Your task to perform on an android device: Open Chrome and go to settings Image 0: 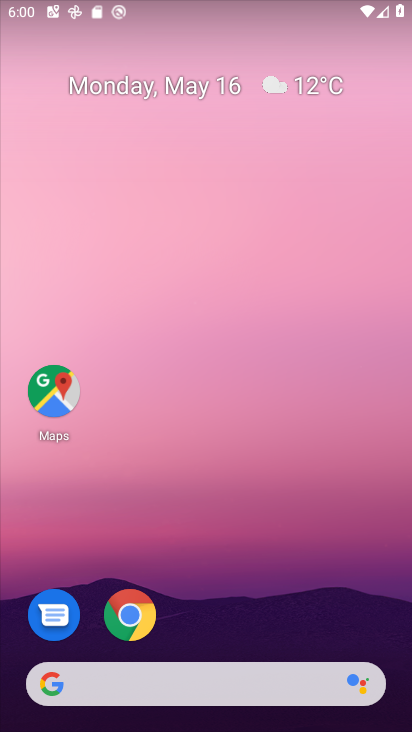
Step 0: click (139, 629)
Your task to perform on an android device: Open Chrome and go to settings Image 1: 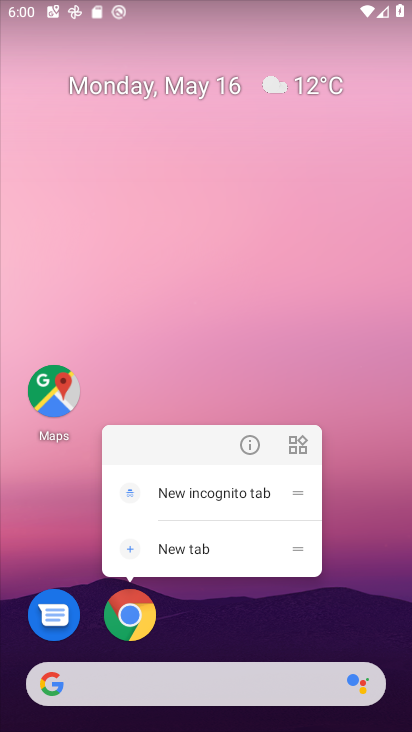
Step 1: click (128, 620)
Your task to perform on an android device: Open Chrome and go to settings Image 2: 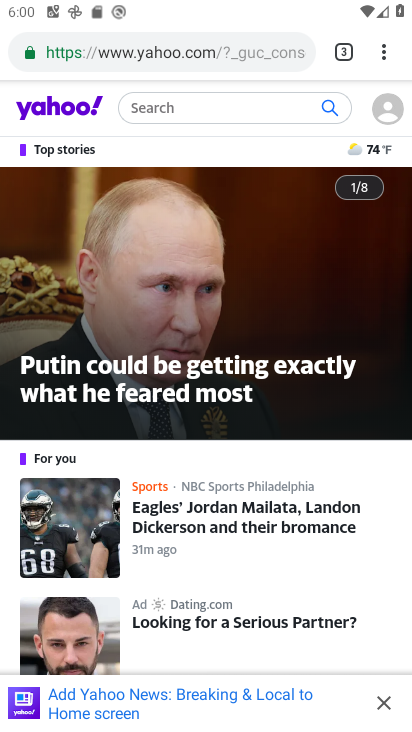
Step 2: click (385, 48)
Your task to perform on an android device: Open Chrome and go to settings Image 3: 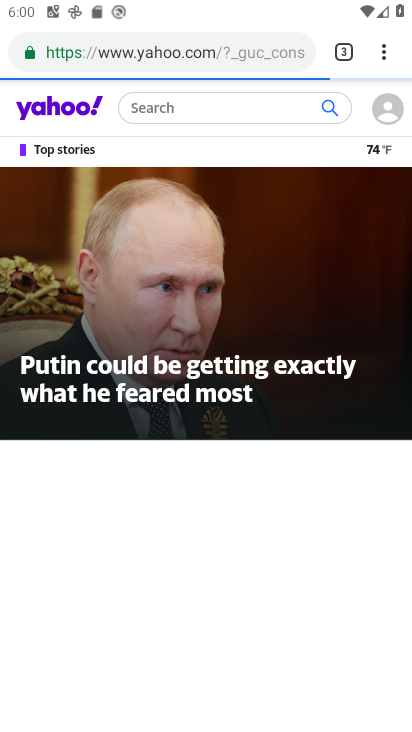
Step 3: click (380, 52)
Your task to perform on an android device: Open Chrome and go to settings Image 4: 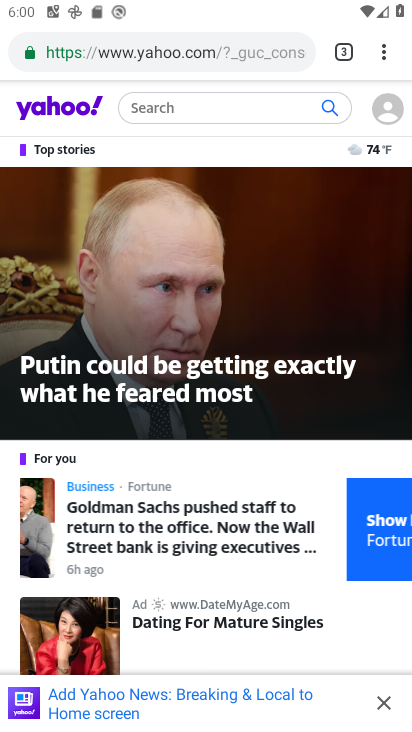
Step 4: click (383, 51)
Your task to perform on an android device: Open Chrome and go to settings Image 5: 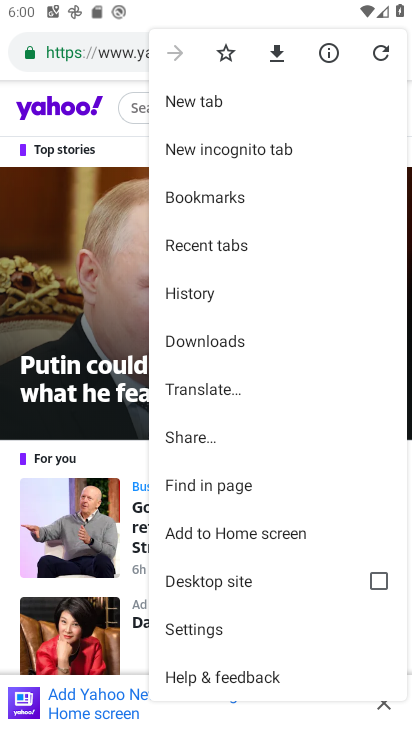
Step 5: click (218, 634)
Your task to perform on an android device: Open Chrome and go to settings Image 6: 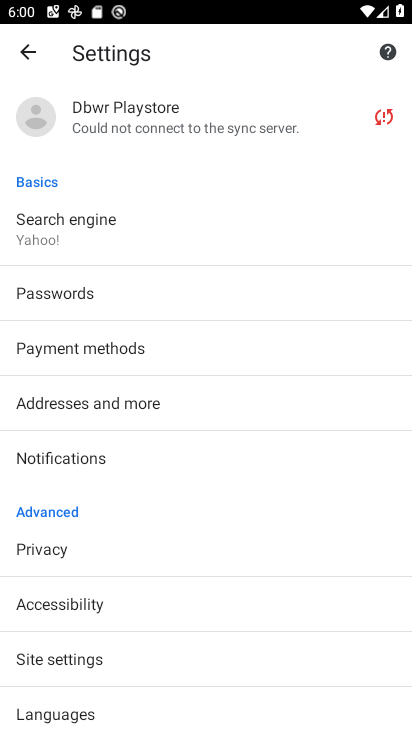
Step 6: task complete